Your task to perform on an android device: Go to display settings Image 0: 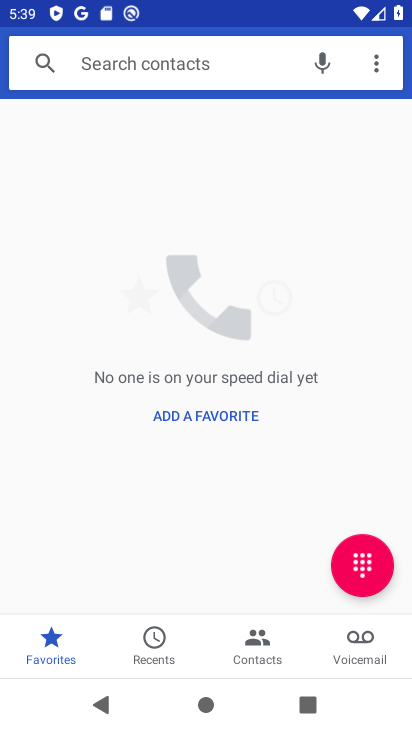
Step 0: press home button
Your task to perform on an android device: Go to display settings Image 1: 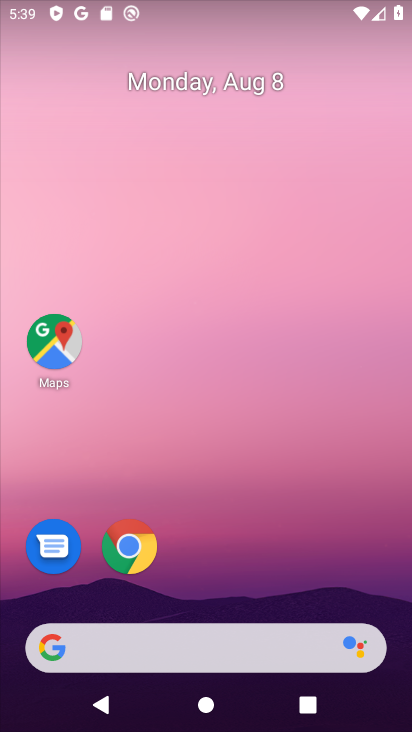
Step 1: drag from (261, 577) to (260, 122)
Your task to perform on an android device: Go to display settings Image 2: 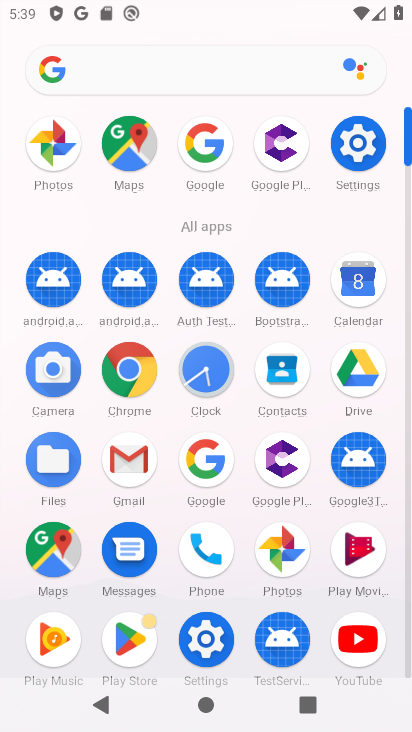
Step 2: click (350, 154)
Your task to perform on an android device: Go to display settings Image 3: 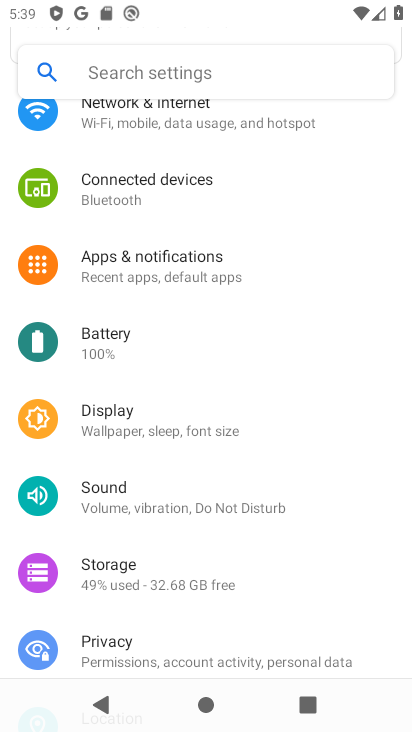
Step 3: click (150, 417)
Your task to perform on an android device: Go to display settings Image 4: 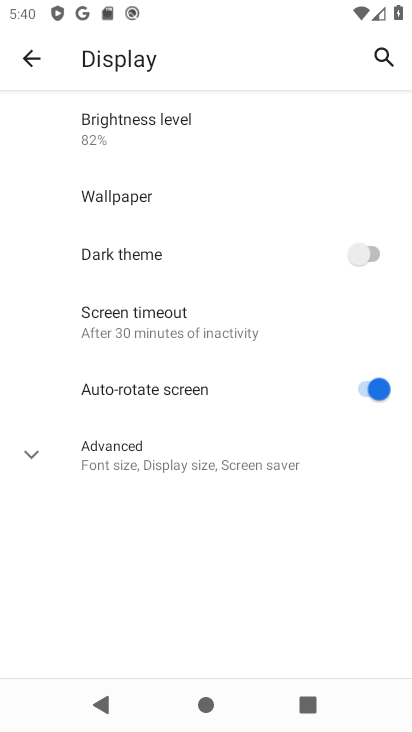
Step 4: task complete